Your task to perform on an android device: toggle priority inbox in the gmail app Image 0: 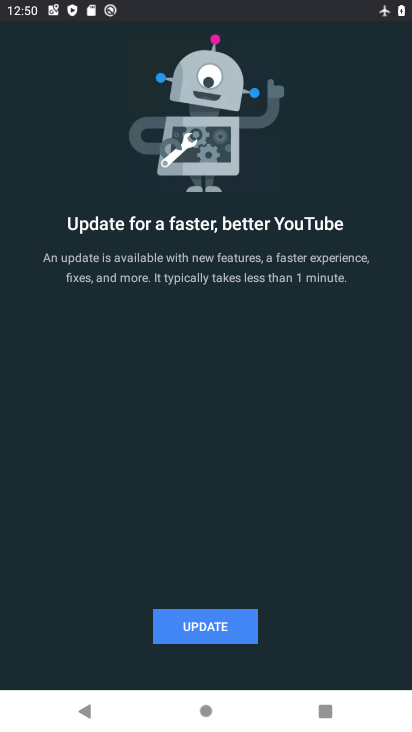
Step 0: press home button
Your task to perform on an android device: toggle priority inbox in the gmail app Image 1: 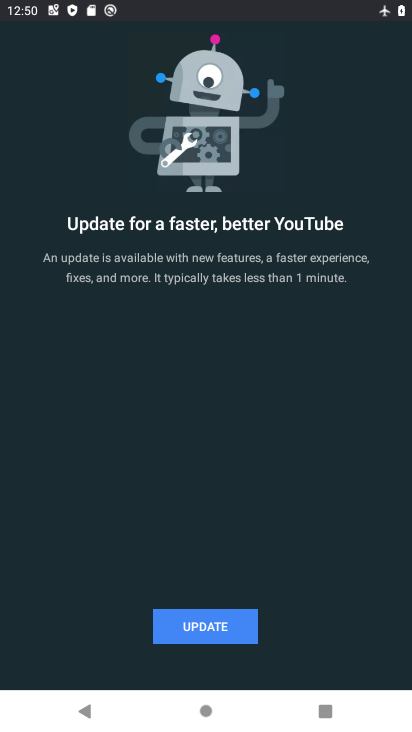
Step 1: press home button
Your task to perform on an android device: toggle priority inbox in the gmail app Image 2: 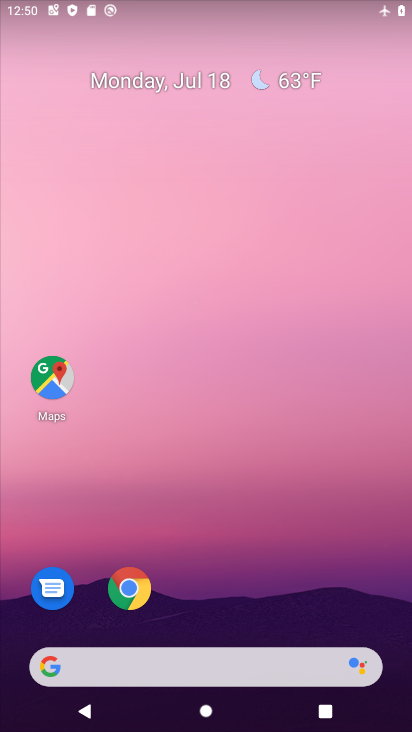
Step 2: drag from (230, 729) to (214, 117)
Your task to perform on an android device: toggle priority inbox in the gmail app Image 3: 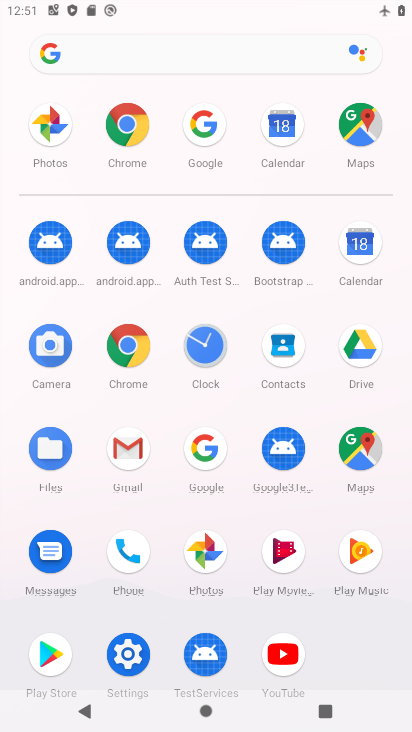
Step 3: click (124, 455)
Your task to perform on an android device: toggle priority inbox in the gmail app Image 4: 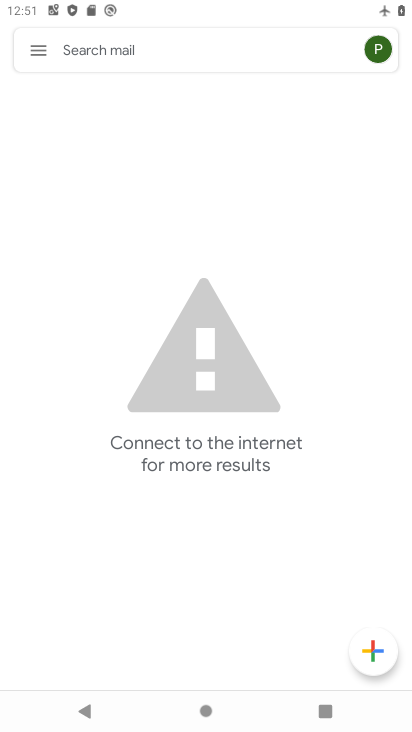
Step 4: click (34, 52)
Your task to perform on an android device: toggle priority inbox in the gmail app Image 5: 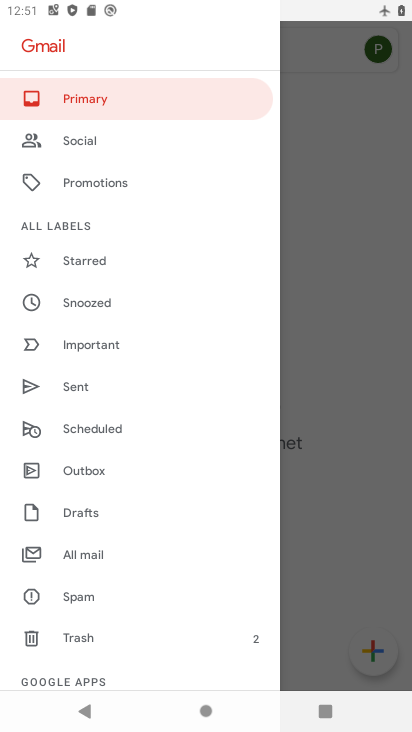
Step 5: drag from (94, 646) to (96, 341)
Your task to perform on an android device: toggle priority inbox in the gmail app Image 6: 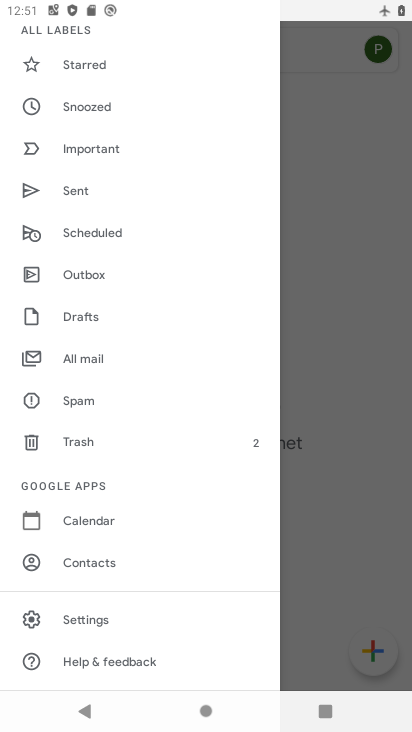
Step 6: click (81, 618)
Your task to perform on an android device: toggle priority inbox in the gmail app Image 7: 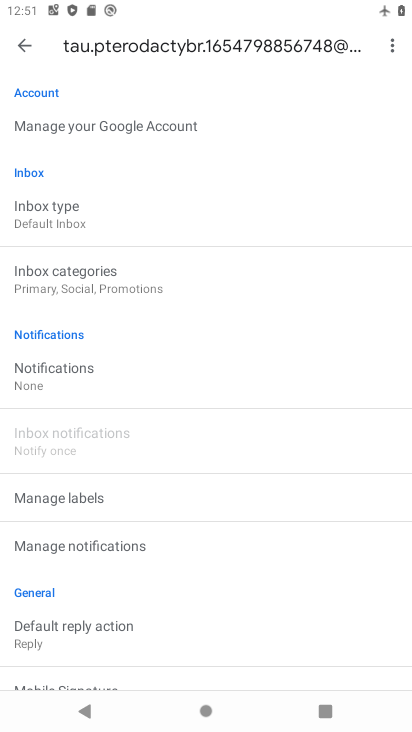
Step 7: click (62, 214)
Your task to perform on an android device: toggle priority inbox in the gmail app Image 8: 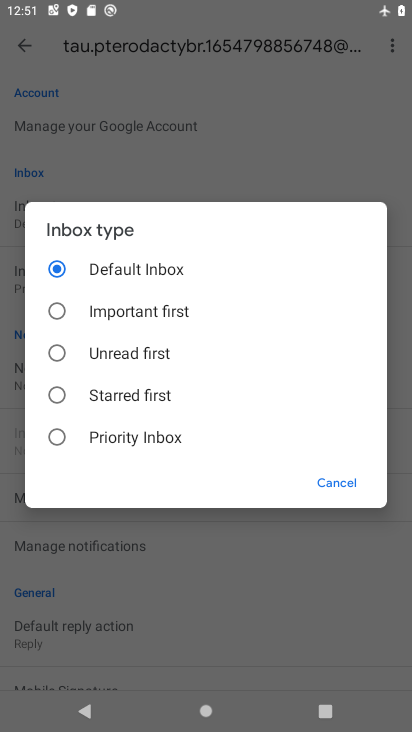
Step 8: click (58, 427)
Your task to perform on an android device: toggle priority inbox in the gmail app Image 9: 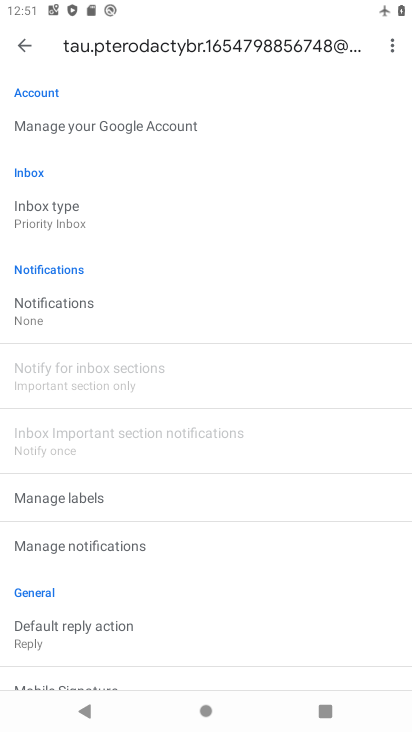
Step 9: task complete